Your task to perform on an android device: turn on wifi Image 0: 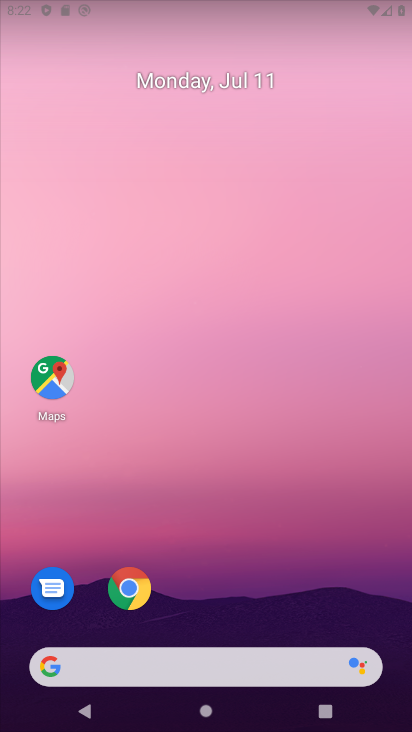
Step 0: drag from (205, 520) to (291, 25)
Your task to perform on an android device: turn on wifi Image 1: 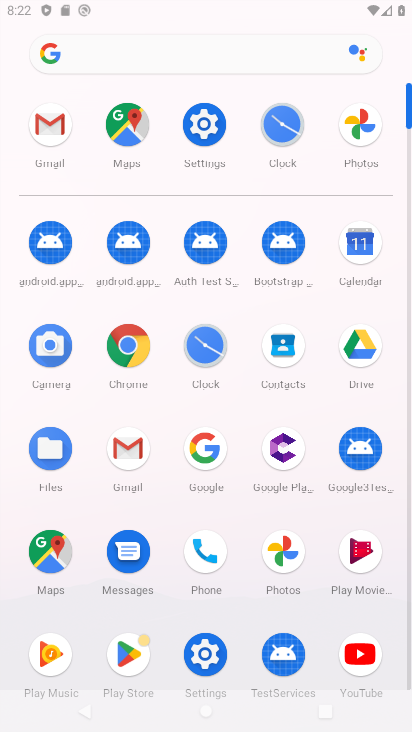
Step 1: click (202, 134)
Your task to perform on an android device: turn on wifi Image 2: 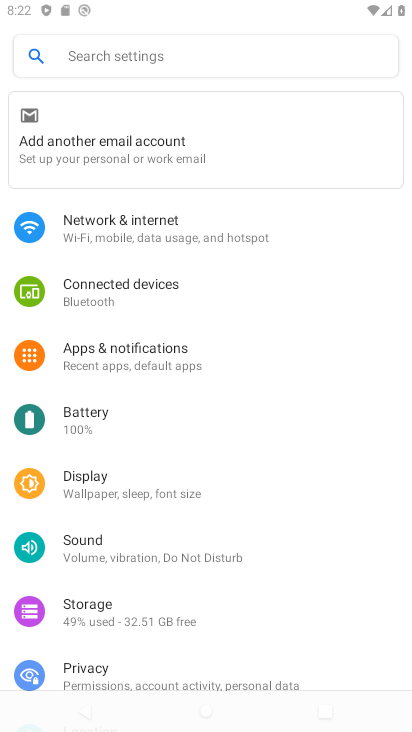
Step 2: click (192, 237)
Your task to perform on an android device: turn on wifi Image 3: 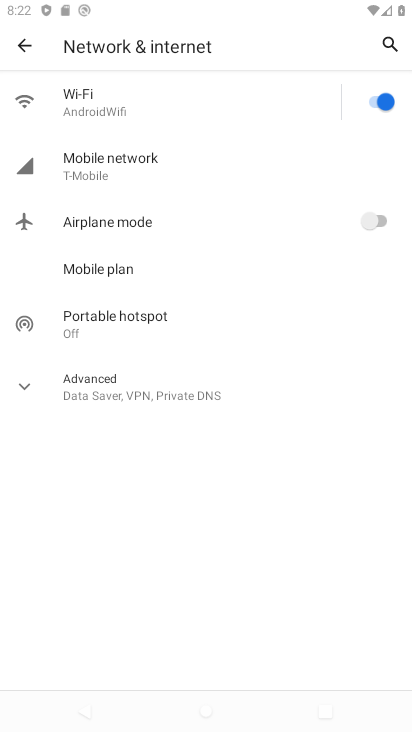
Step 3: task complete